Your task to perform on an android device: toggle show notifications on the lock screen Image 0: 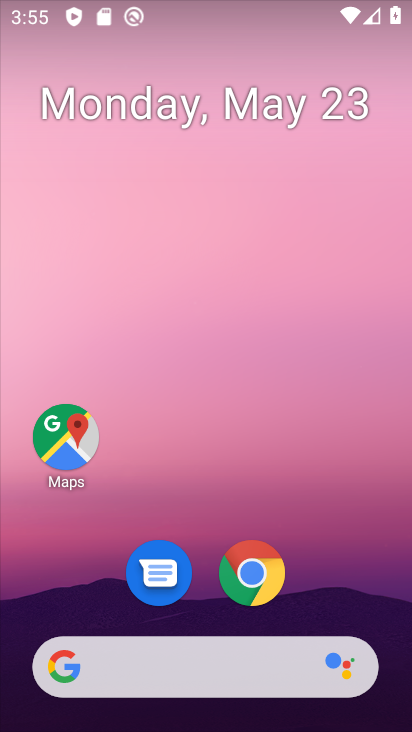
Step 0: drag from (191, 725) to (127, 151)
Your task to perform on an android device: toggle show notifications on the lock screen Image 1: 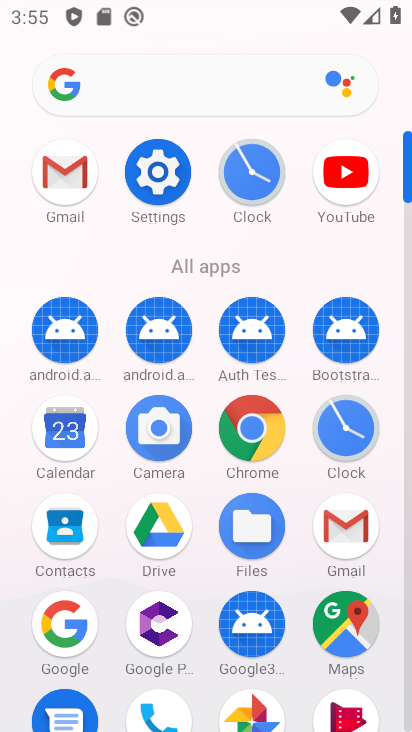
Step 1: click (154, 173)
Your task to perform on an android device: toggle show notifications on the lock screen Image 2: 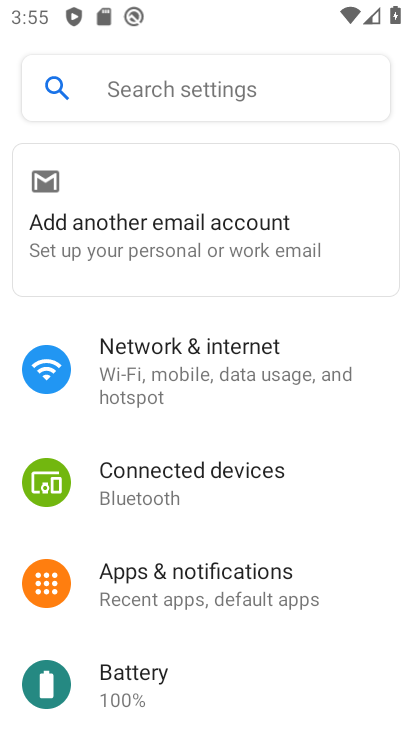
Step 2: click (181, 593)
Your task to perform on an android device: toggle show notifications on the lock screen Image 3: 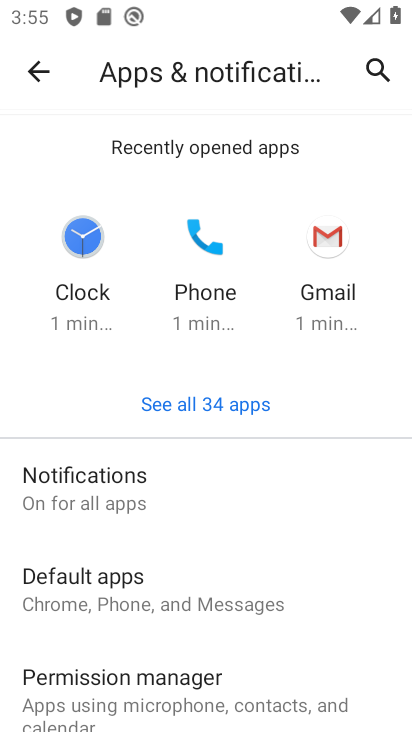
Step 3: drag from (155, 665) to (154, 488)
Your task to perform on an android device: toggle show notifications on the lock screen Image 4: 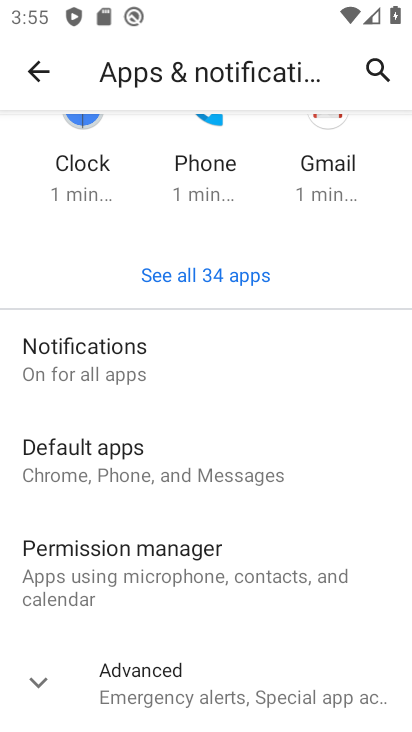
Step 4: click (95, 364)
Your task to perform on an android device: toggle show notifications on the lock screen Image 5: 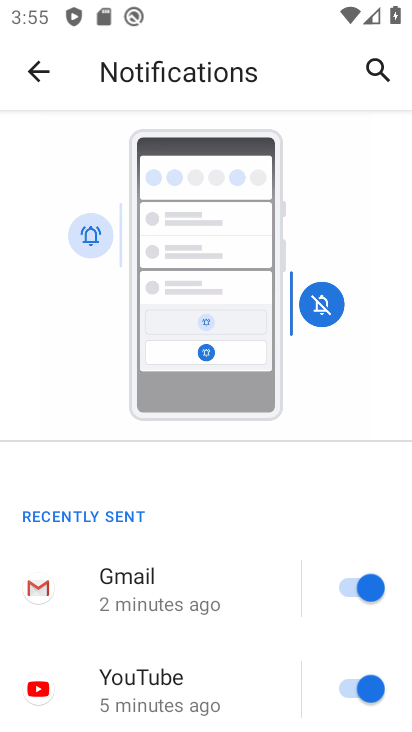
Step 5: drag from (223, 683) to (204, 384)
Your task to perform on an android device: toggle show notifications on the lock screen Image 6: 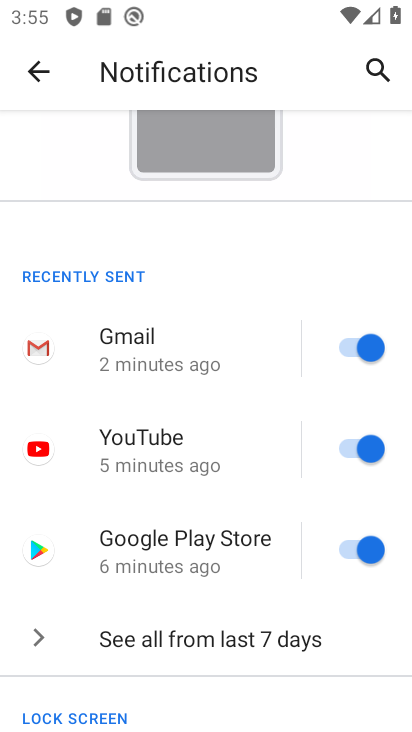
Step 6: drag from (205, 681) to (210, 330)
Your task to perform on an android device: toggle show notifications on the lock screen Image 7: 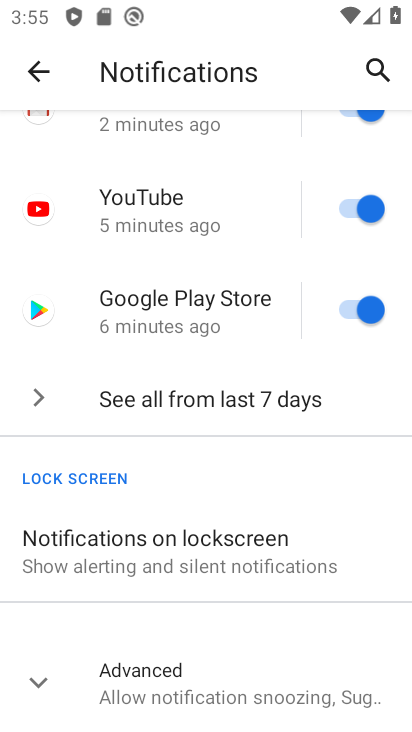
Step 7: click (129, 554)
Your task to perform on an android device: toggle show notifications on the lock screen Image 8: 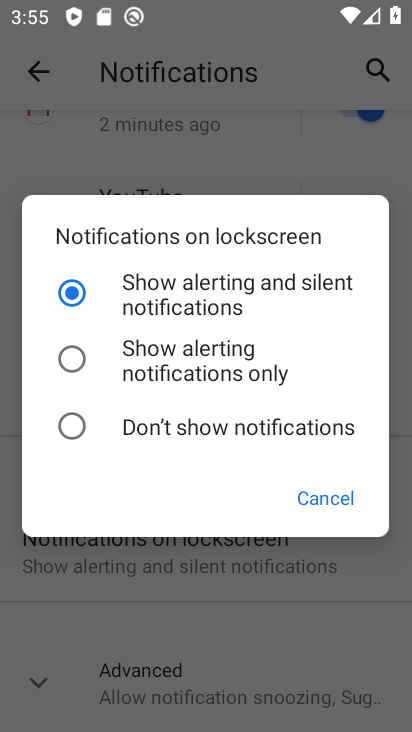
Step 8: click (75, 367)
Your task to perform on an android device: toggle show notifications on the lock screen Image 9: 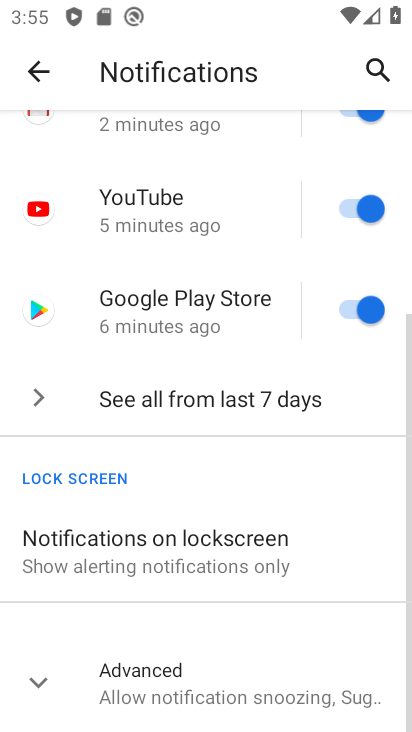
Step 9: task complete